Your task to perform on an android device: turn smart compose on in the gmail app Image 0: 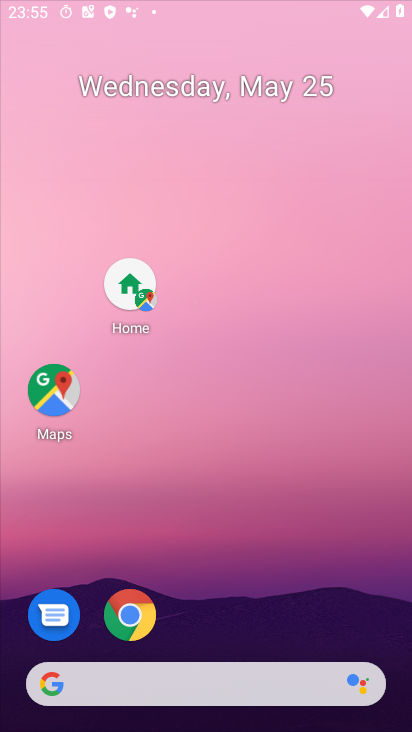
Step 0: press home button
Your task to perform on an android device: turn smart compose on in the gmail app Image 1: 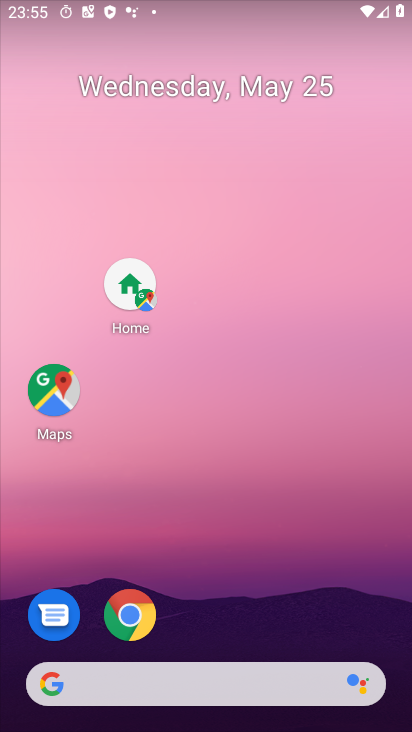
Step 1: drag from (209, 636) to (134, 110)
Your task to perform on an android device: turn smart compose on in the gmail app Image 2: 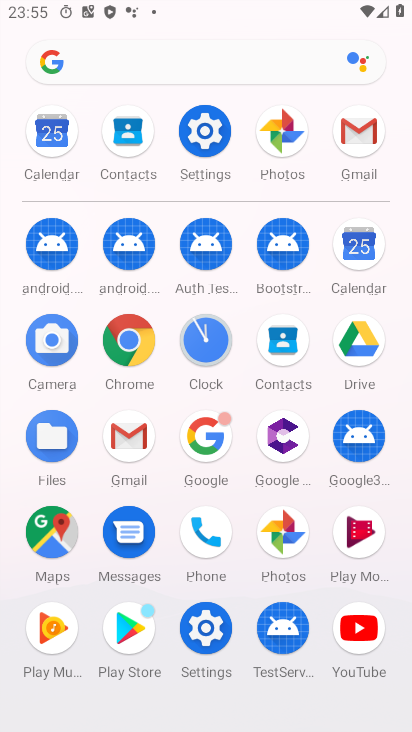
Step 2: click (351, 132)
Your task to perform on an android device: turn smart compose on in the gmail app Image 3: 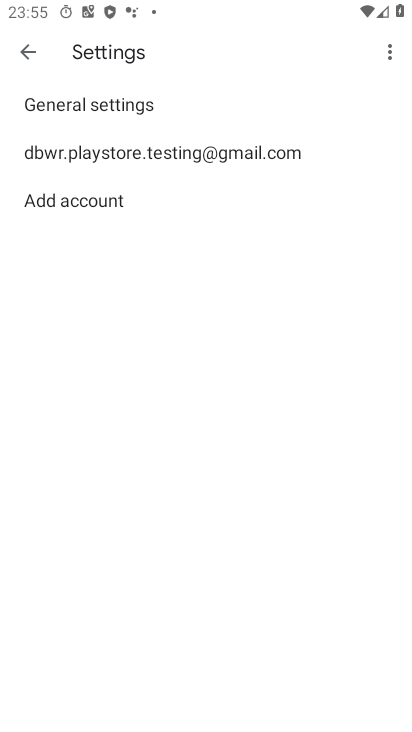
Step 3: click (147, 158)
Your task to perform on an android device: turn smart compose on in the gmail app Image 4: 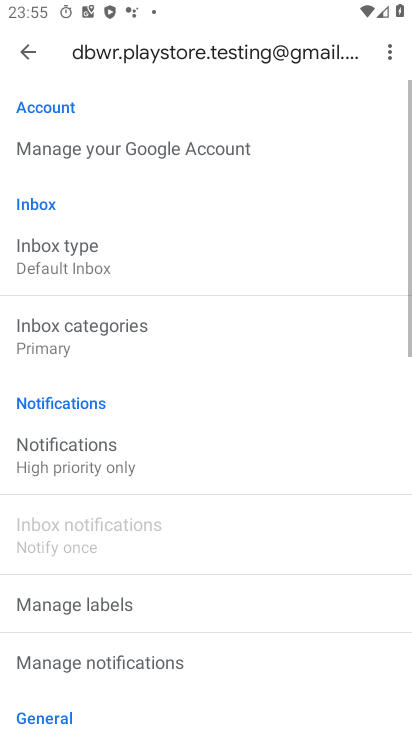
Step 4: task complete